Your task to perform on an android device: turn on bluetooth scan Image 0: 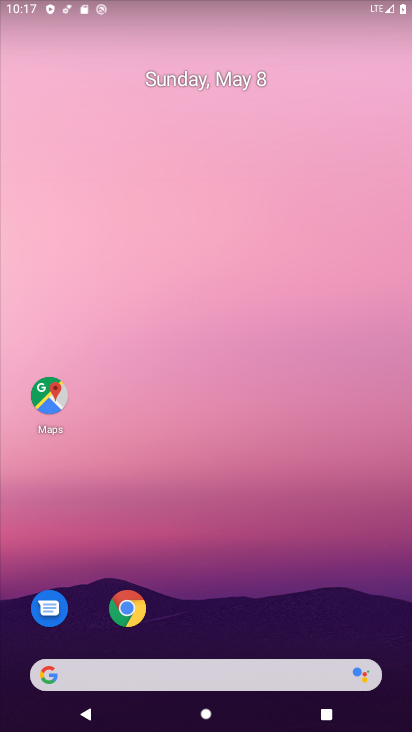
Step 0: drag from (165, 617) to (208, 211)
Your task to perform on an android device: turn on bluetooth scan Image 1: 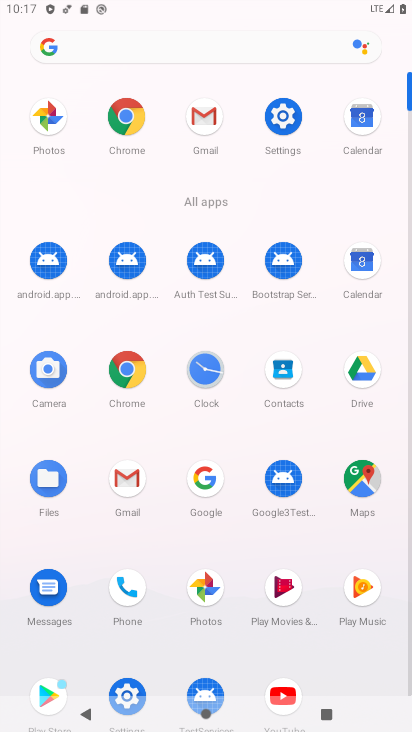
Step 1: click (287, 121)
Your task to perform on an android device: turn on bluetooth scan Image 2: 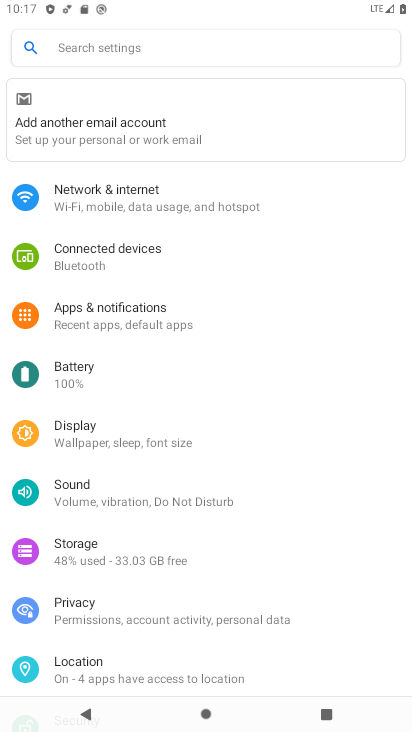
Step 2: drag from (203, 638) to (232, 301)
Your task to perform on an android device: turn on bluetooth scan Image 3: 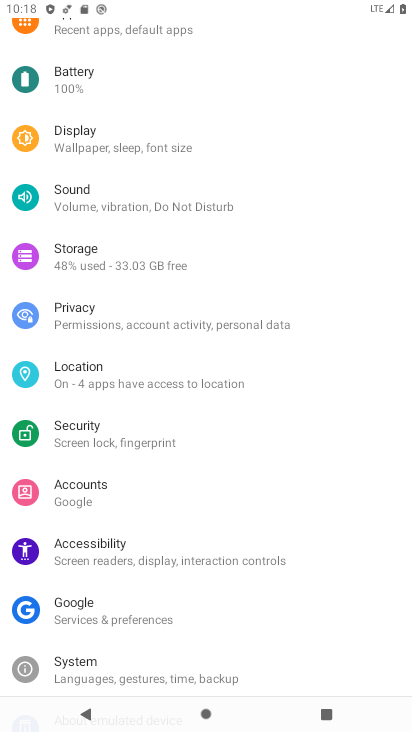
Step 3: click (160, 376)
Your task to perform on an android device: turn on bluetooth scan Image 4: 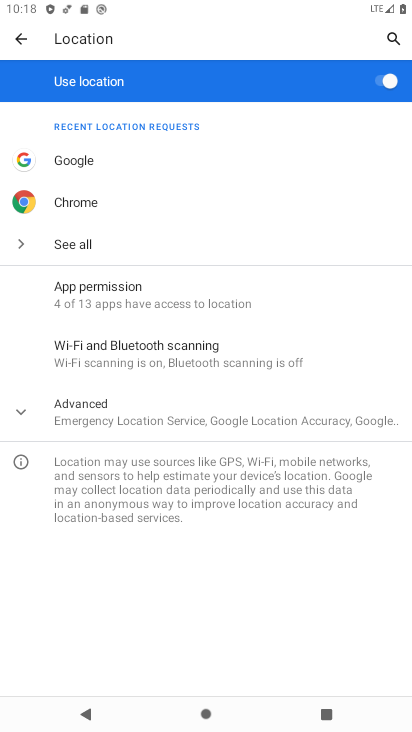
Step 4: click (167, 351)
Your task to perform on an android device: turn on bluetooth scan Image 5: 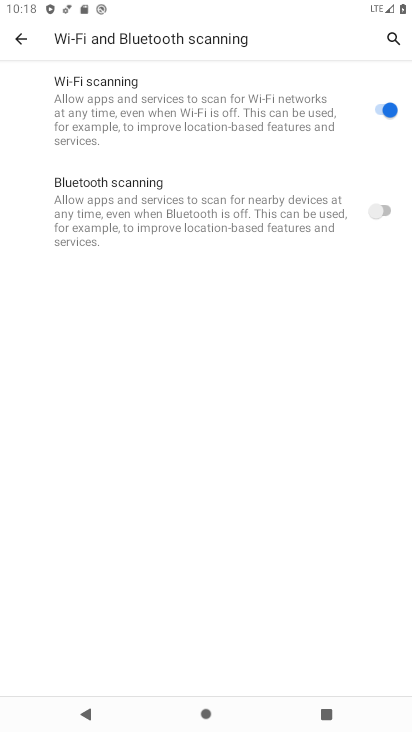
Step 5: task complete